Your task to perform on an android device: Go to Maps Image 0: 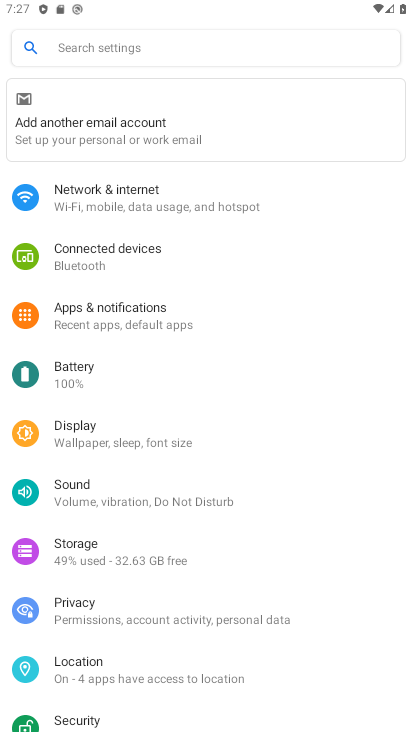
Step 0: press home button
Your task to perform on an android device: Go to Maps Image 1: 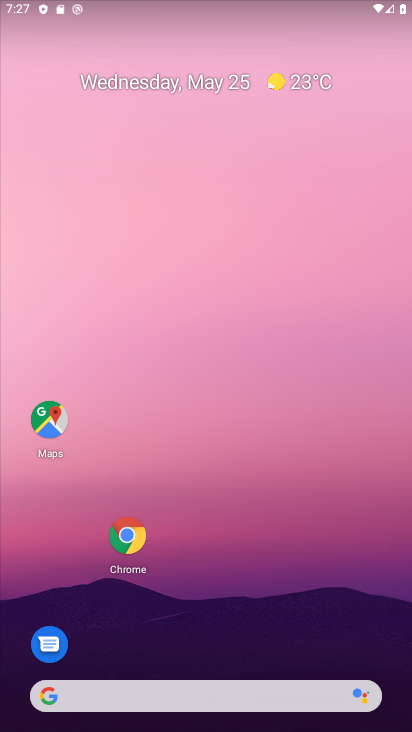
Step 1: click (47, 409)
Your task to perform on an android device: Go to Maps Image 2: 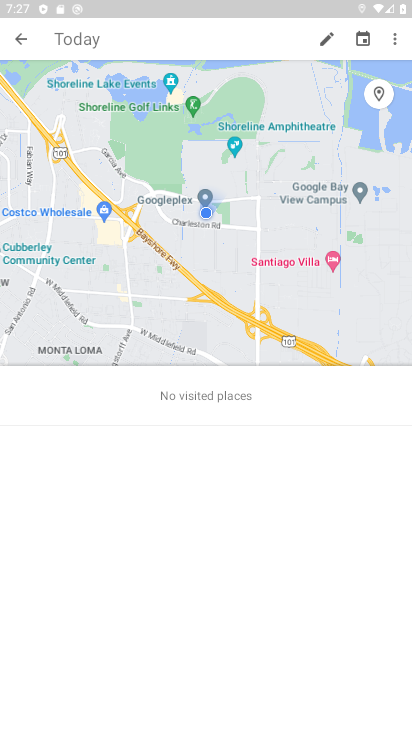
Step 2: task complete